Your task to perform on an android device: check android version Image 0: 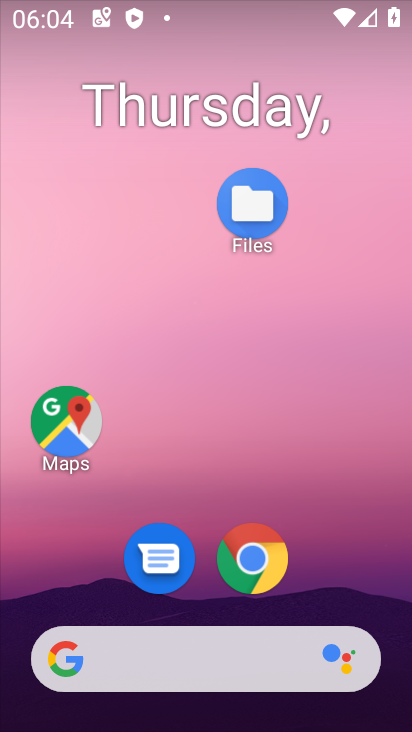
Step 0: drag from (315, 593) to (246, 74)
Your task to perform on an android device: check android version Image 1: 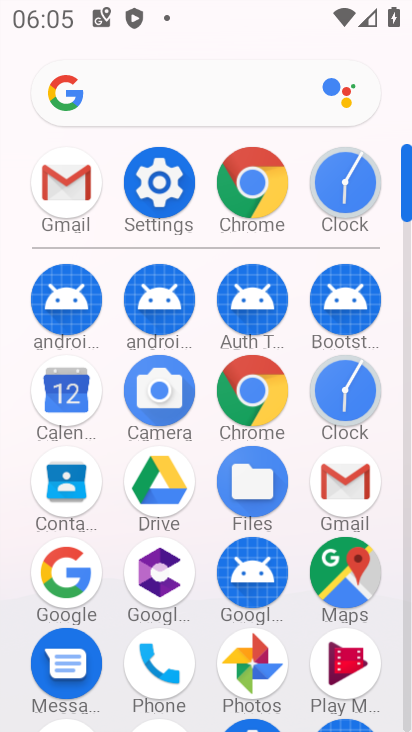
Step 1: click (167, 184)
Your task to perform on an android device: check android version Image 2: 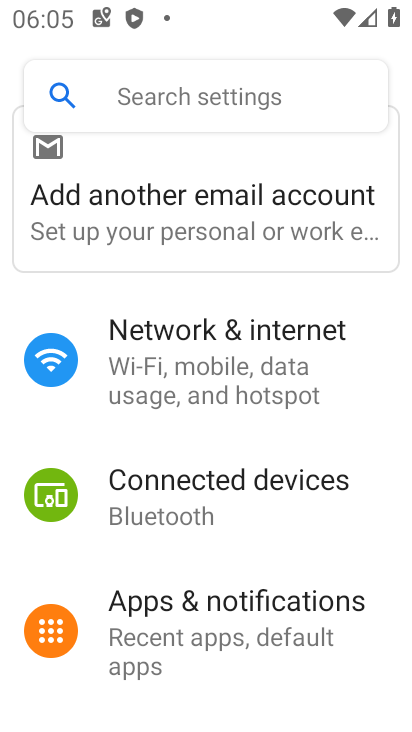
Step 2: click (160, 174)
Your task to perform on an android device: check android version Image 3: 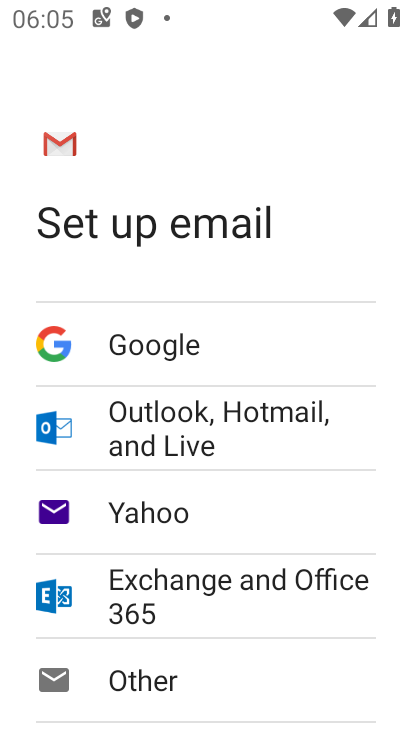
Step 3: press back button
Your task to perform on an android device: check android version Image 4: 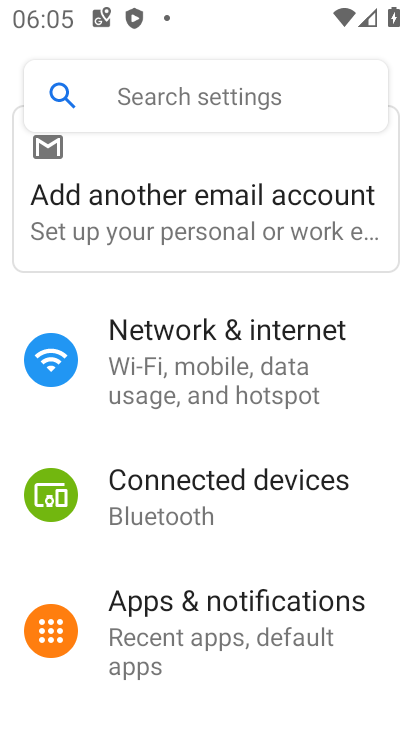
Step 4: drag from (172, 624) to (199, 305)
Your task to perform on an android device: check android version Image 5: 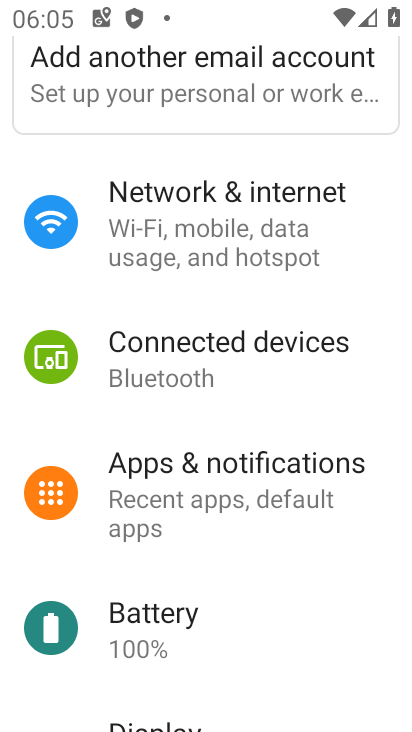
Step 5: drag from (236, 577) to (244, 285)
Your task to perform on an android device: check android version Image 6: 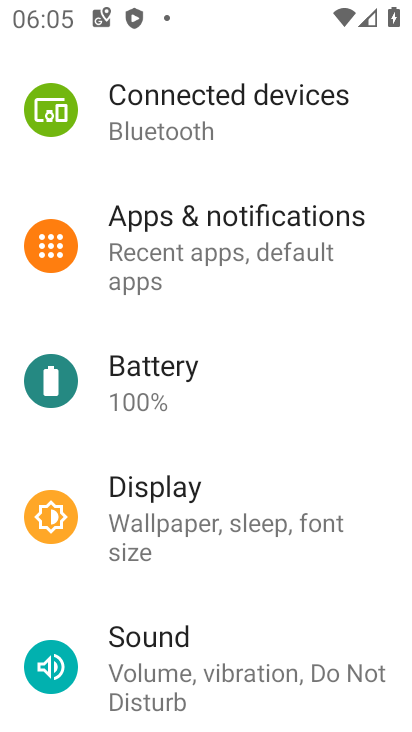
Step 6: drag from (225, 653) to (284, 261)
Your task to perform on an android device: check android version Image 7: 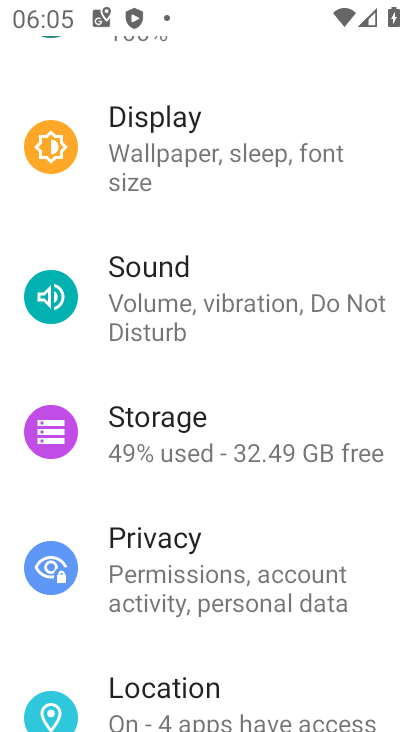
Step 7: drag from (220, 622) to (273, 267)
Your task to perform on an android device: check android version Image 8: 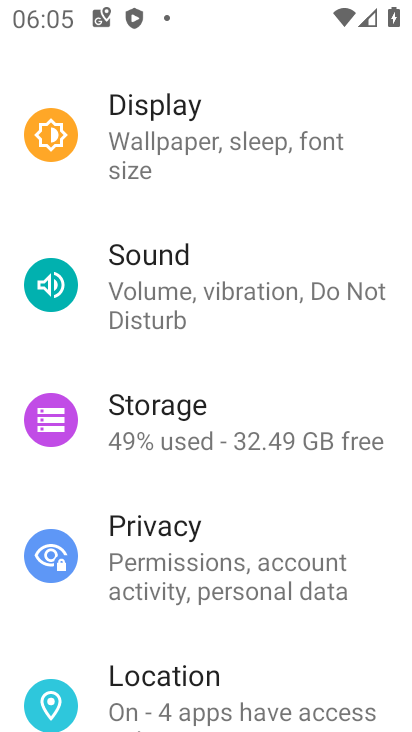
Step 8: drag from (191, 547) to (231, 413)
Your task to perform on an android device: check android version Image 9: 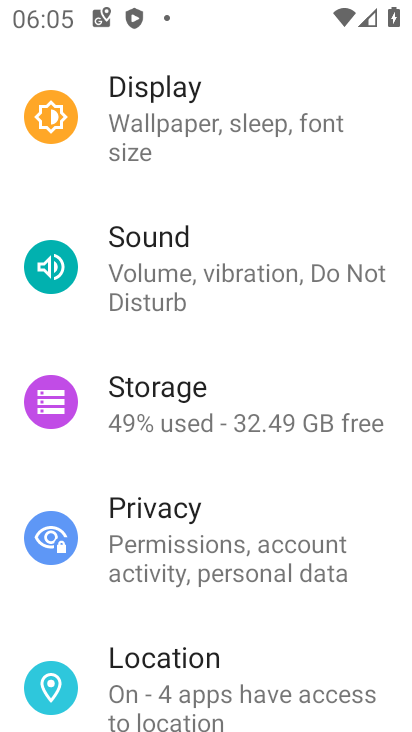
Step 9: drag from (271, 644) to (292, 331)
Your task to perform on an android device: check android version Image 10: 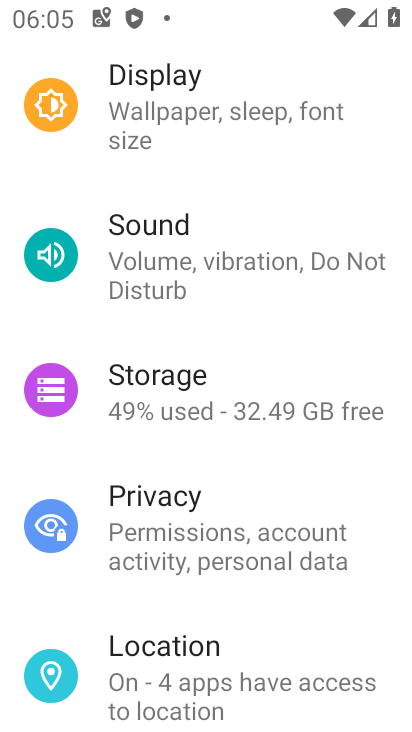
Step 10: drag from (245, 653) to (277, 313)
Your task to perform on an android device: check android version Image 11: 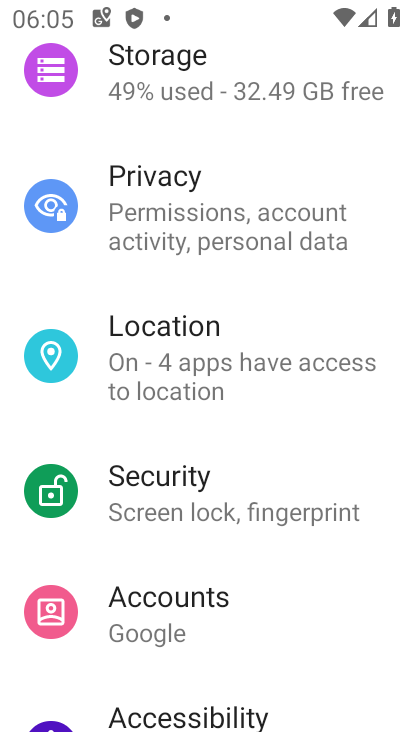
Step 11: drag from (268, 656) to (217, 240)
Your task to perform on an android device: check android version Image 12: 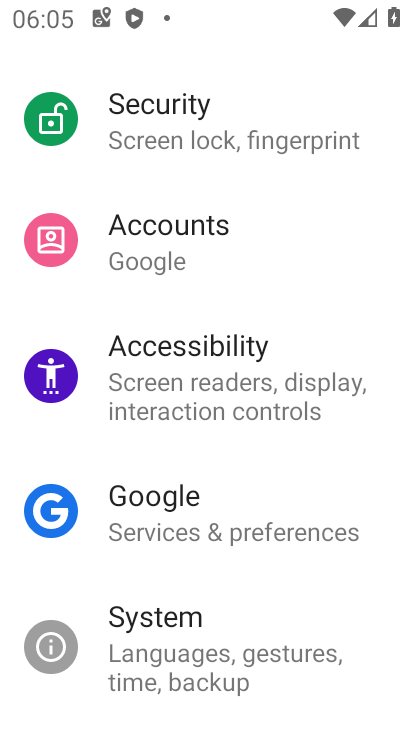
Step 12: drag from (242, 620) to (295, 187)
Your task to perform on an android device: check android version Image 13: 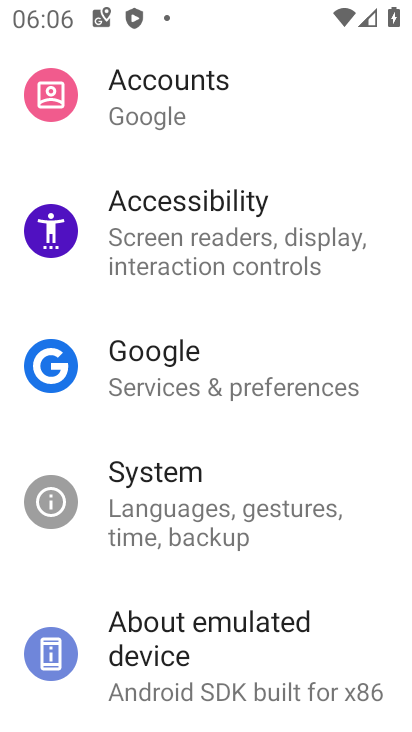
Step 13: click (202, 672)
Your task to perform on an android device: check android version Image 14: 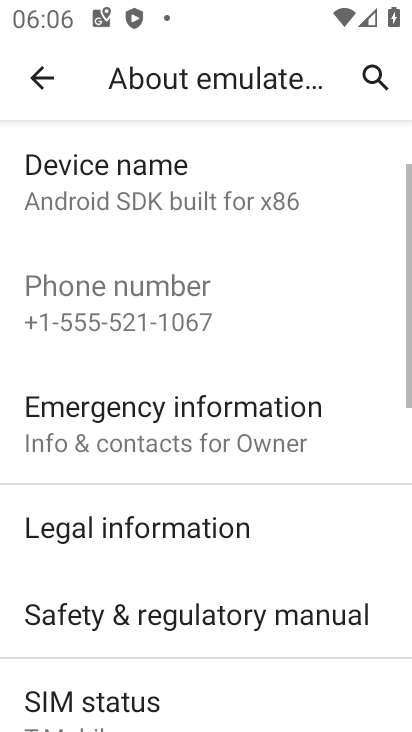
Step 14: click (291, 273)
Your task to perform on an android device: check android version Image 15: 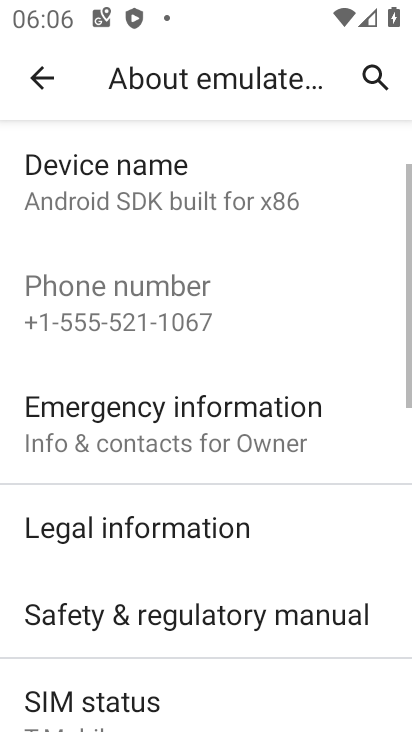
Step 15: drag from (211, 644) to (216, 281)
Your task to perform on an android device: check android version Image 16: 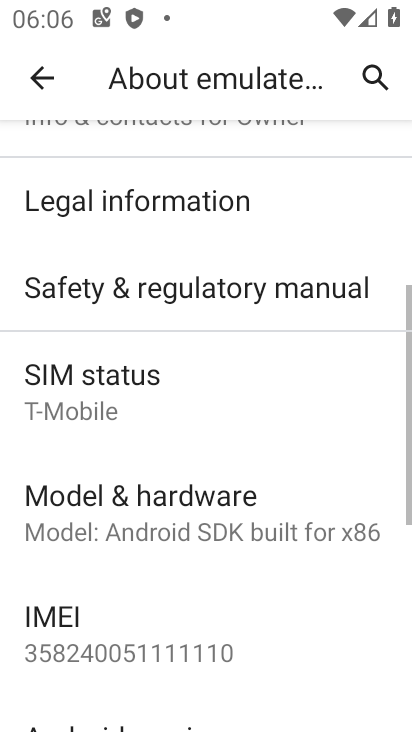
Step 16: drag from (180, 612) to (201, 331)
Your task to perform on an android device: check android version Image 17: 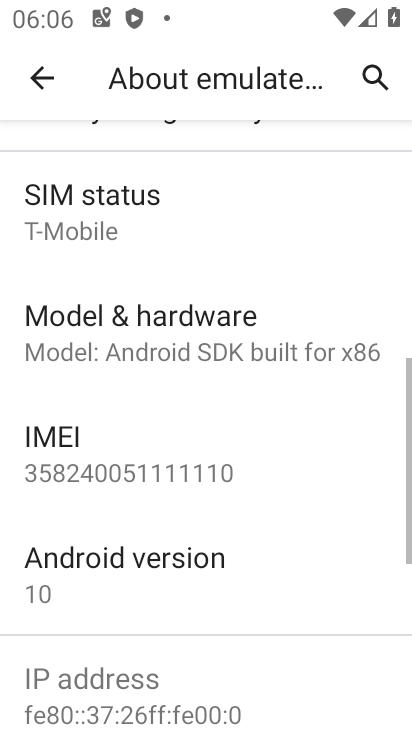
Step 17: drag from (208, 631) to (246, 384)
Your task to perform on an android device: check android version Image 18: 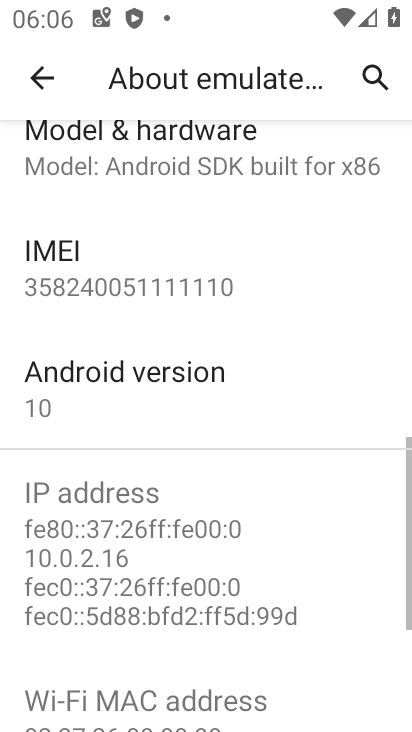
Step 18: click (87, 407)
Your task to perform on an android device: check android version Image 19: 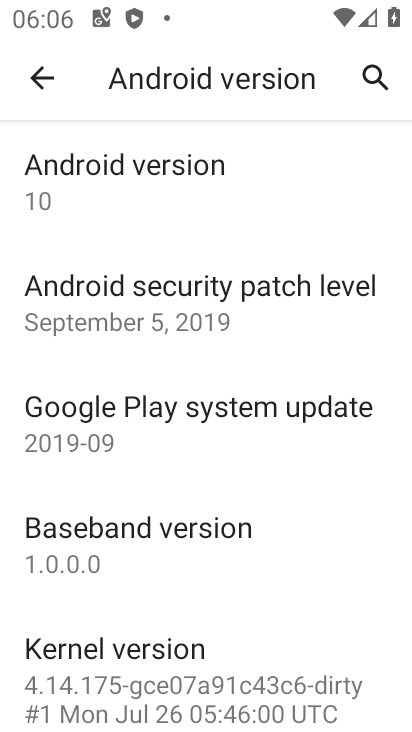
Step 19: task complete